Your task to perform on an android device: manage bookmarks in the chrome app Image 0: 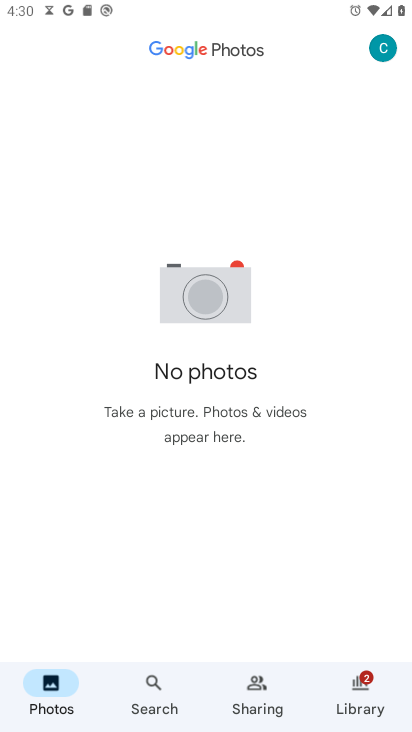
Step 0: press home button
Your task to perform on an android device: manage bookmarks in the chrome app Image 1: 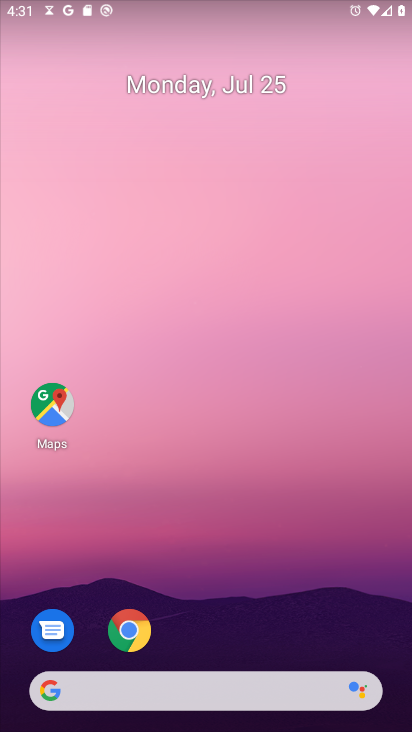
Step 1: click (130, 631)
Your task to perform on an android device: manage bookmarks in the chrome app Image 2: 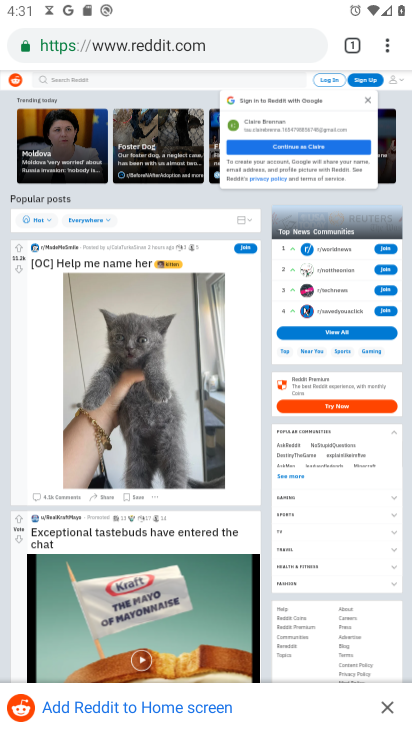
Step 2: click (389, 43)
Your task to perform on an android device: manage bookmarks in the chrome app Image 3: 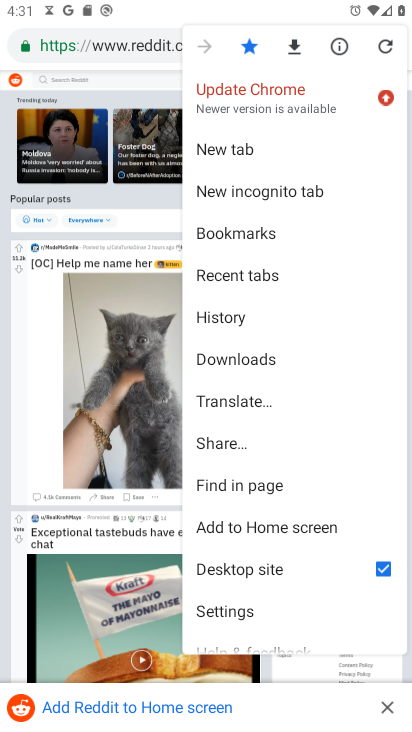
Step 3: click (258, 230)
Your task to perform on an android device: manage bookmarks in the chrome app Image 4: 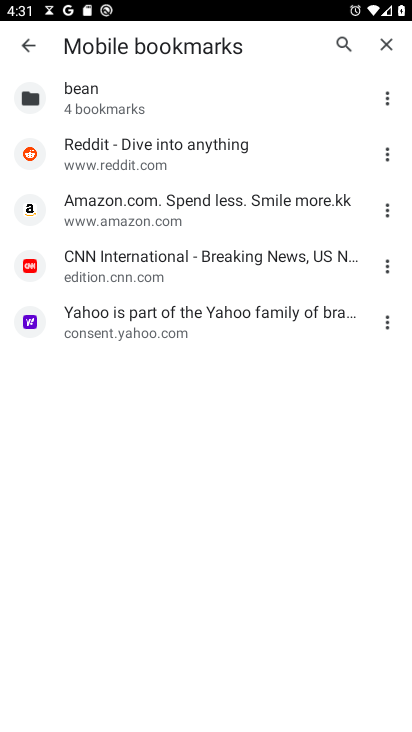
Step 4: click (389, 99)
Your task to perform on an android device: manage bookmarks in the chrome app Image 5: 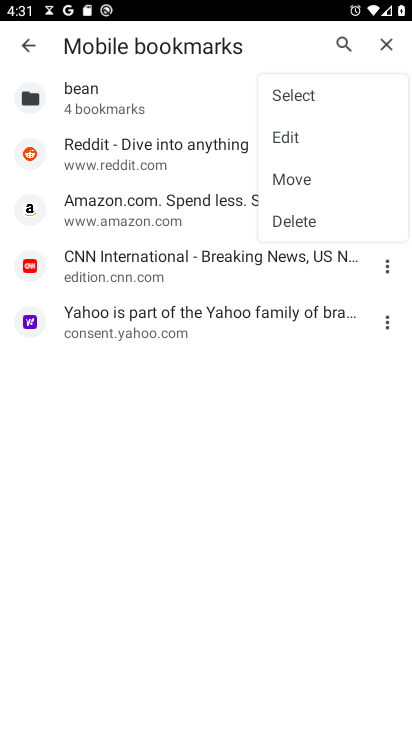
Step 5: click (296, 137)
Your task to perform on an android device: manage bookmarks in the chrome app Image 6: 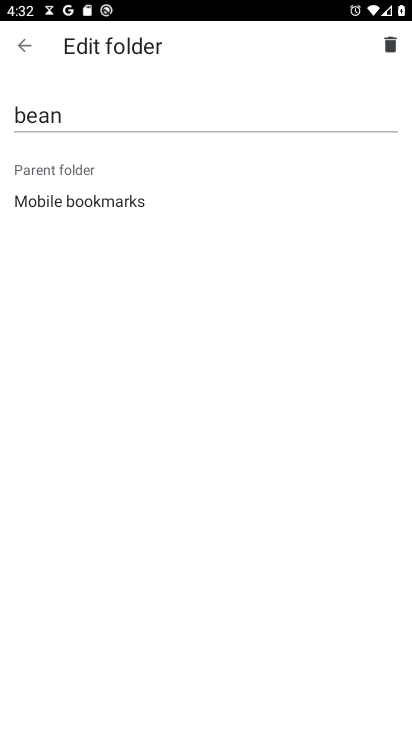
Step 6: click (393, 42)
Your task to perform on an android device: manage bookmarks in the chrome app Image 7: 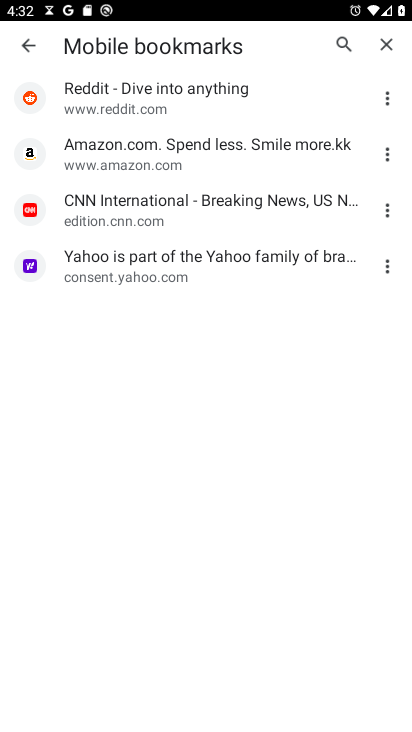
Step 7: task complete